Your task to perform on an android device: Play the last video I watched on Youtube Image 0: 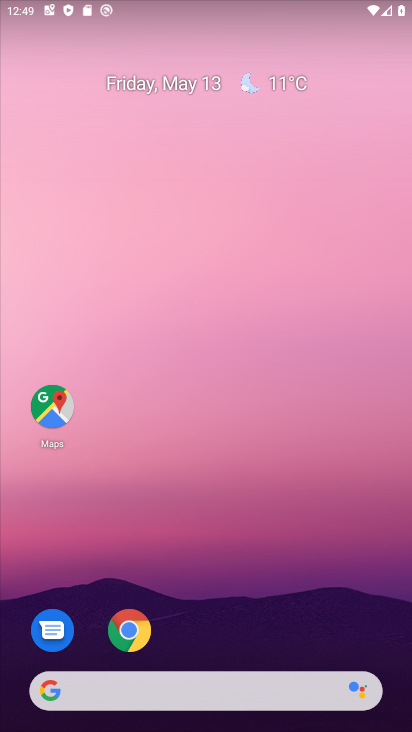
Step 0: drag from (331, 629) to (321, 19)
Your task to perform on an android device: Play the last video I watched on Youtube Image 1: 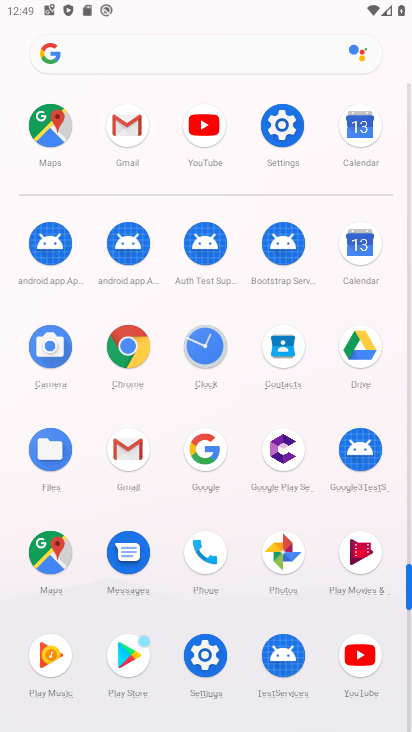
Step 1: click (197, 141)
Your task to perform on an android device: Play the last video I watched on Youtube Image 2: 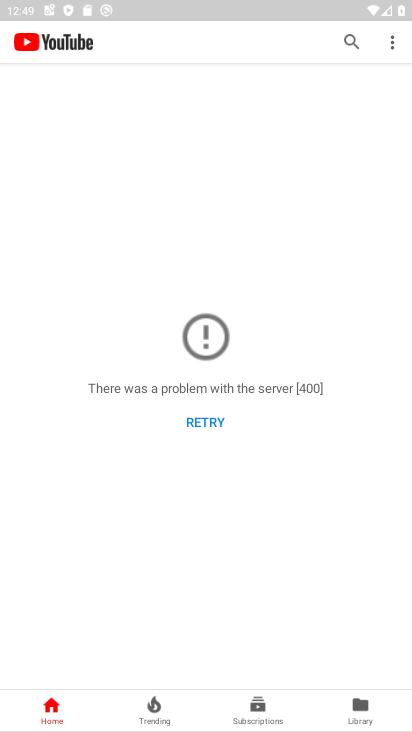
Step 2: click (355, 718)
Your task to perform on an android device: Play the last video I watched on Youtube Image 3: 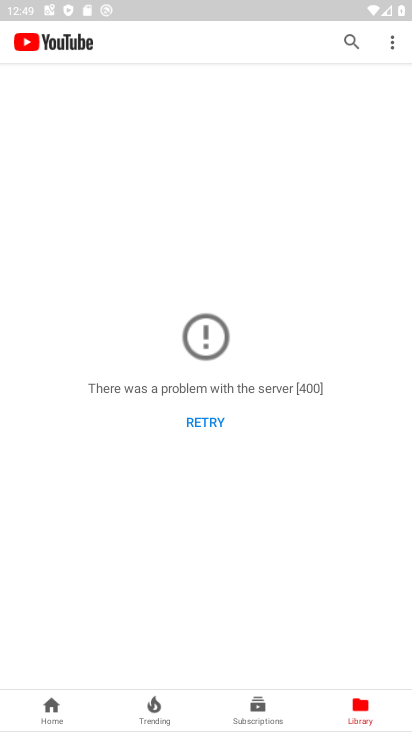
Step 3: click (202, 425)
Your task to perform on an android device: Play the last video I watched on Youtube Image 4: 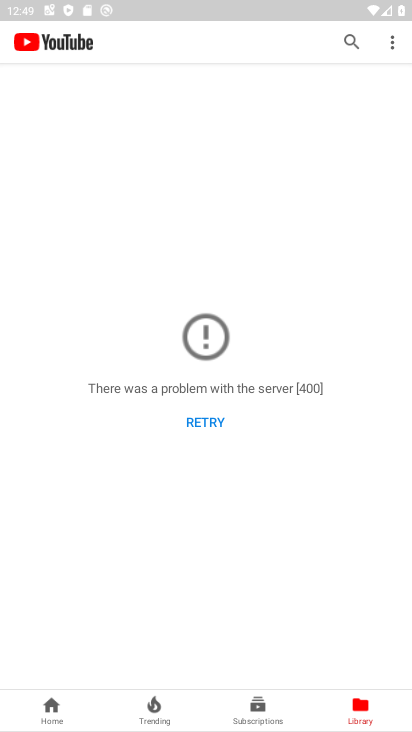
Step 4: task complete